Your task to perform on an android device: turn pop-ups on in chrome Image 0: 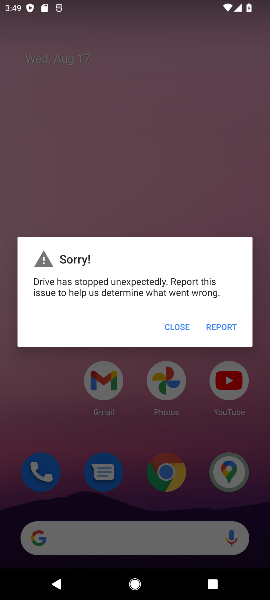
Step 0: click (176, 332)
Your task to perform on an android device: turn pop-ups on in chrome Image 1: 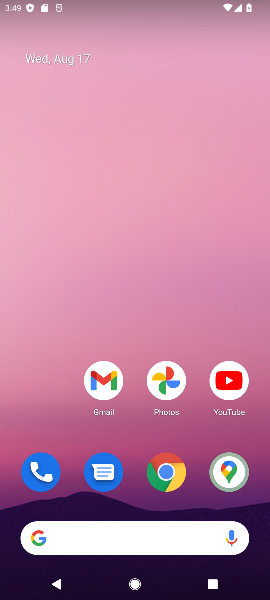
Step 1: click (166, 485)
Your task to perform on an android device: turn pop-ups on in chrome Image 2: 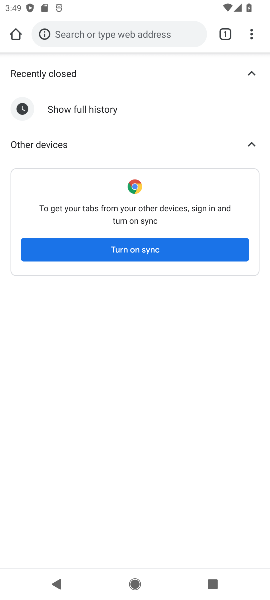
Step 2: click (250, 38)
Your task to perform on an android device: turn pop-ups on in chrome Image 3: 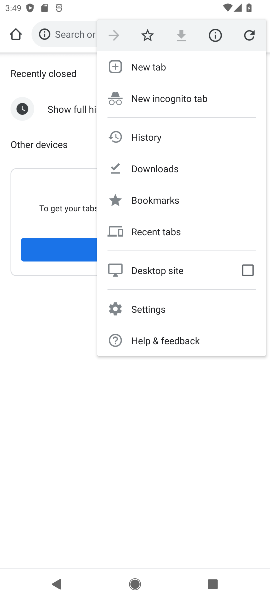
Step 3: click (165, 313)
Your task to perform on an android device: turn pop-ups on in chrome Image 4: 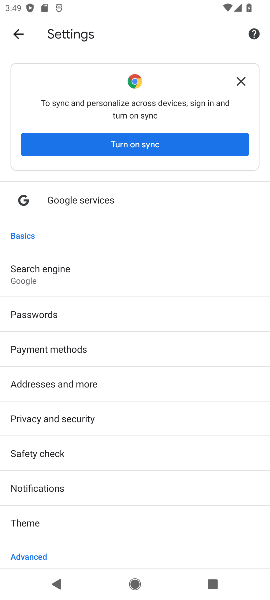
Step 4: drag from (112, 520) to (140, 242)
Your task to perform on an android device: turn pop-ups on in chrome Image 5: 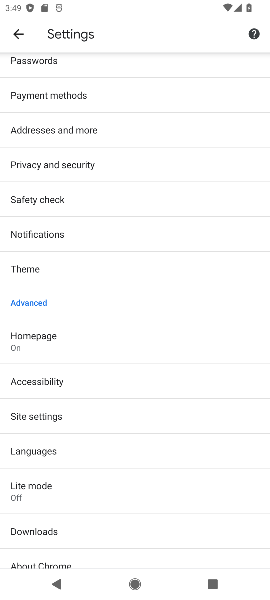
Step 5: click (84, 422)
Your task to perform on an android device: turn pop-ups on in chrome Image 6: 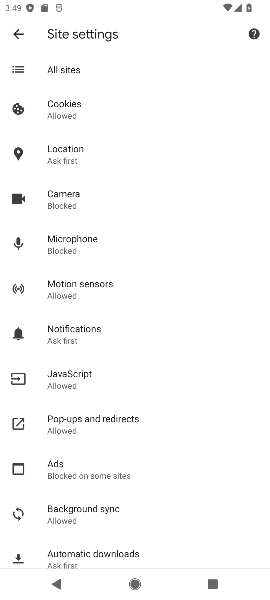
Step 6: click (84, 422)
Your task to perform on an android device: turn pop-ups on in chrome Image 7: 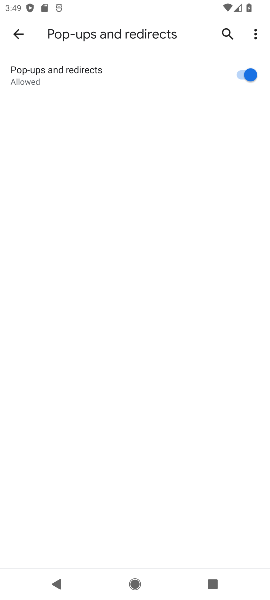
Step 7: task complete